Your task to perform on an android device: change the clock display to analog Image 0: 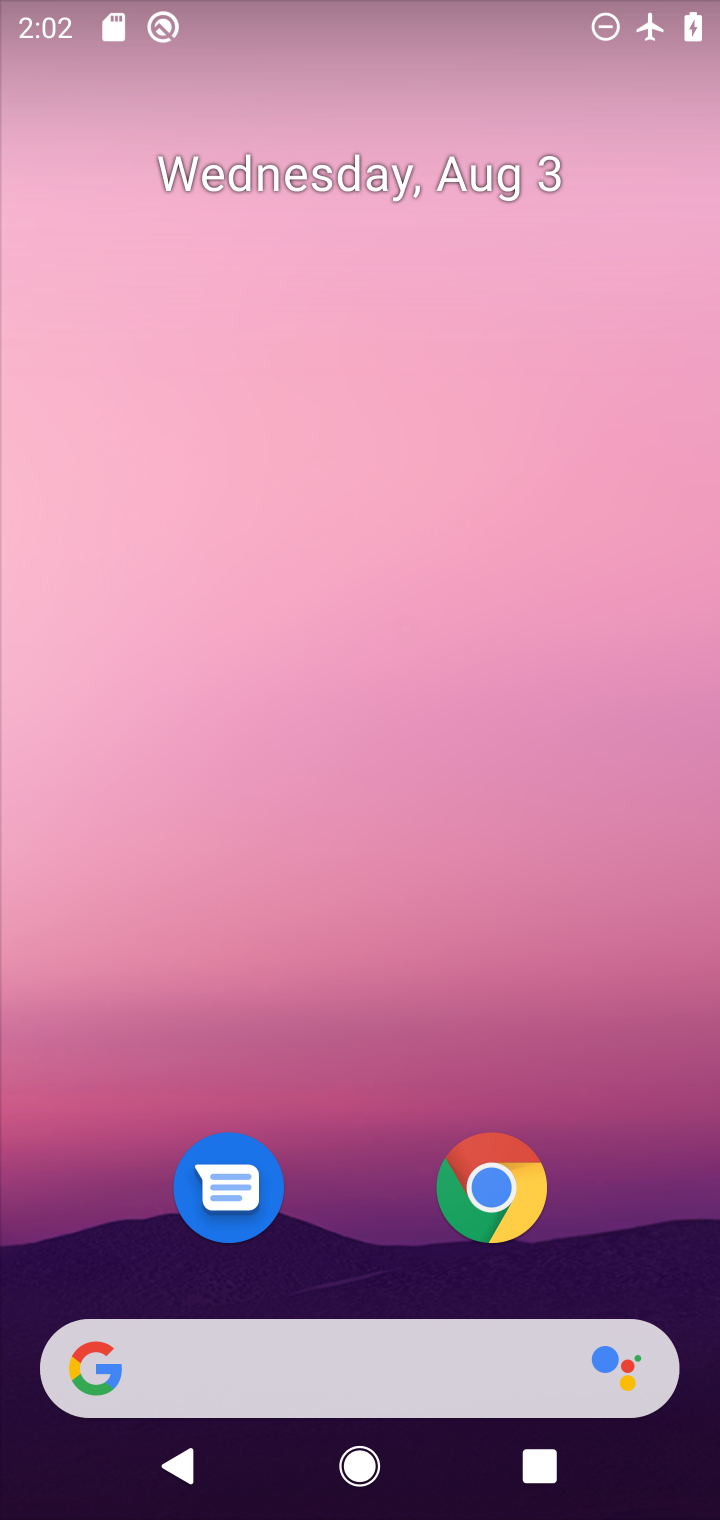
Step 0: drag from (329, 1096) to (308, 24)
Your task to perform on an android device: change the clock display to analog Image 1: 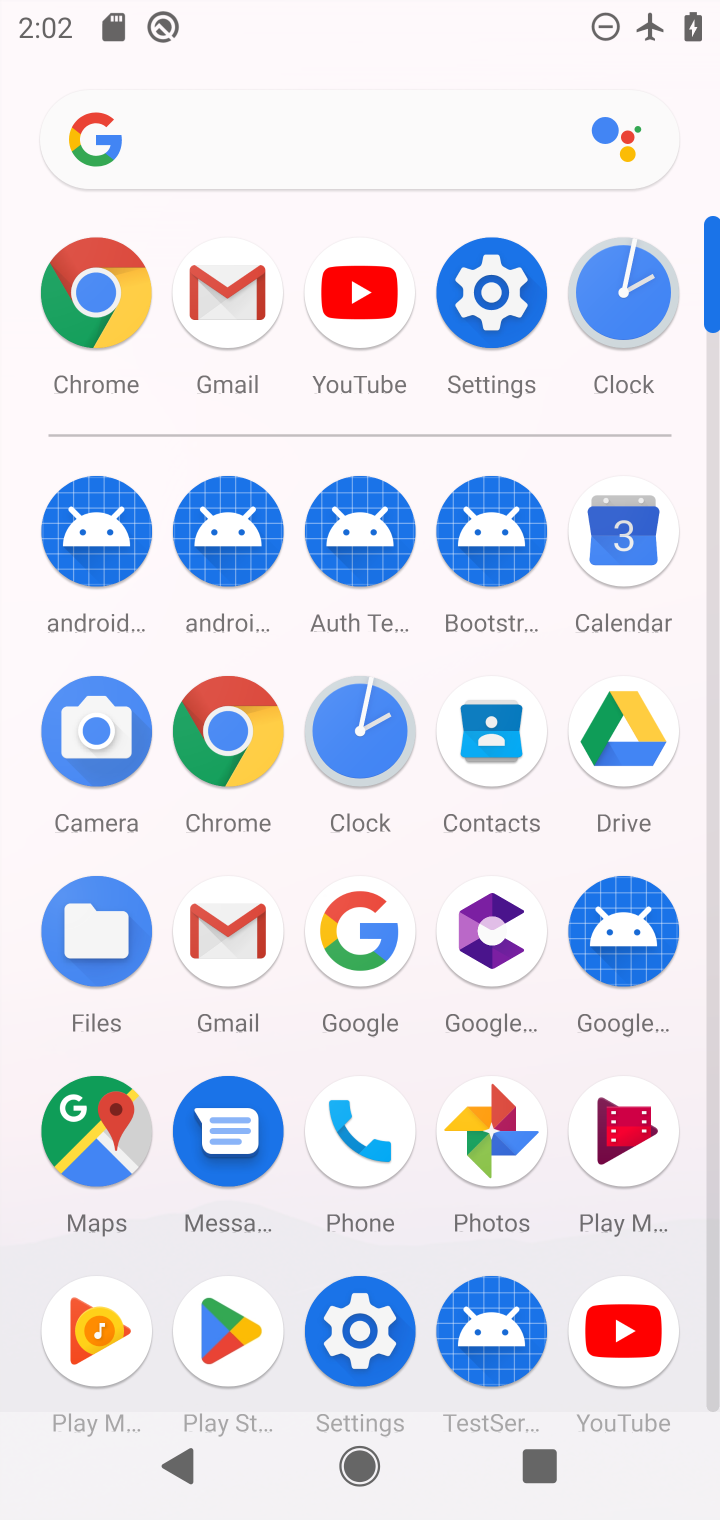
Step 1: click (616, 297)
Your task to perform on an android device: change the clock display to analog Image 2: 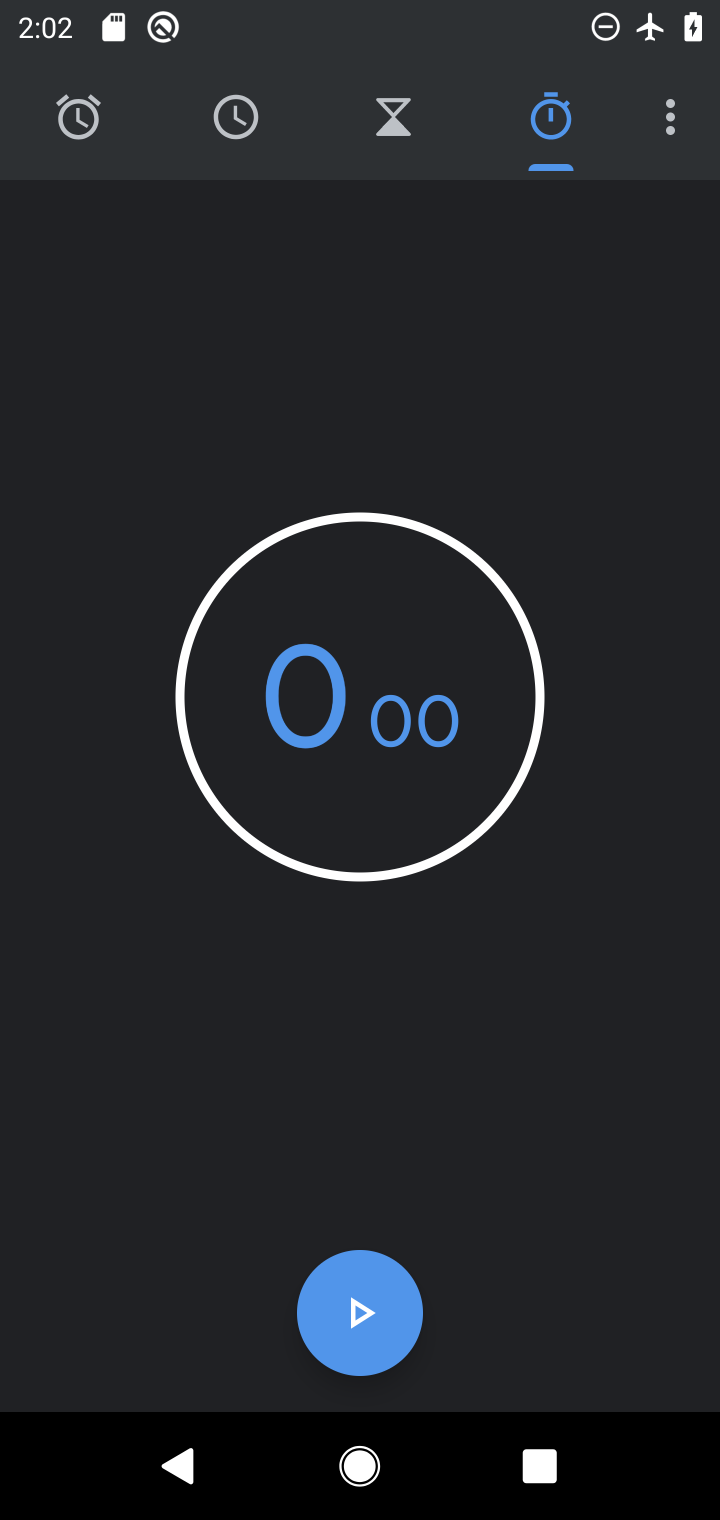
Step 2: click (254, 123)
Your task to perform on an android device: change the clock display to analog Image 3: 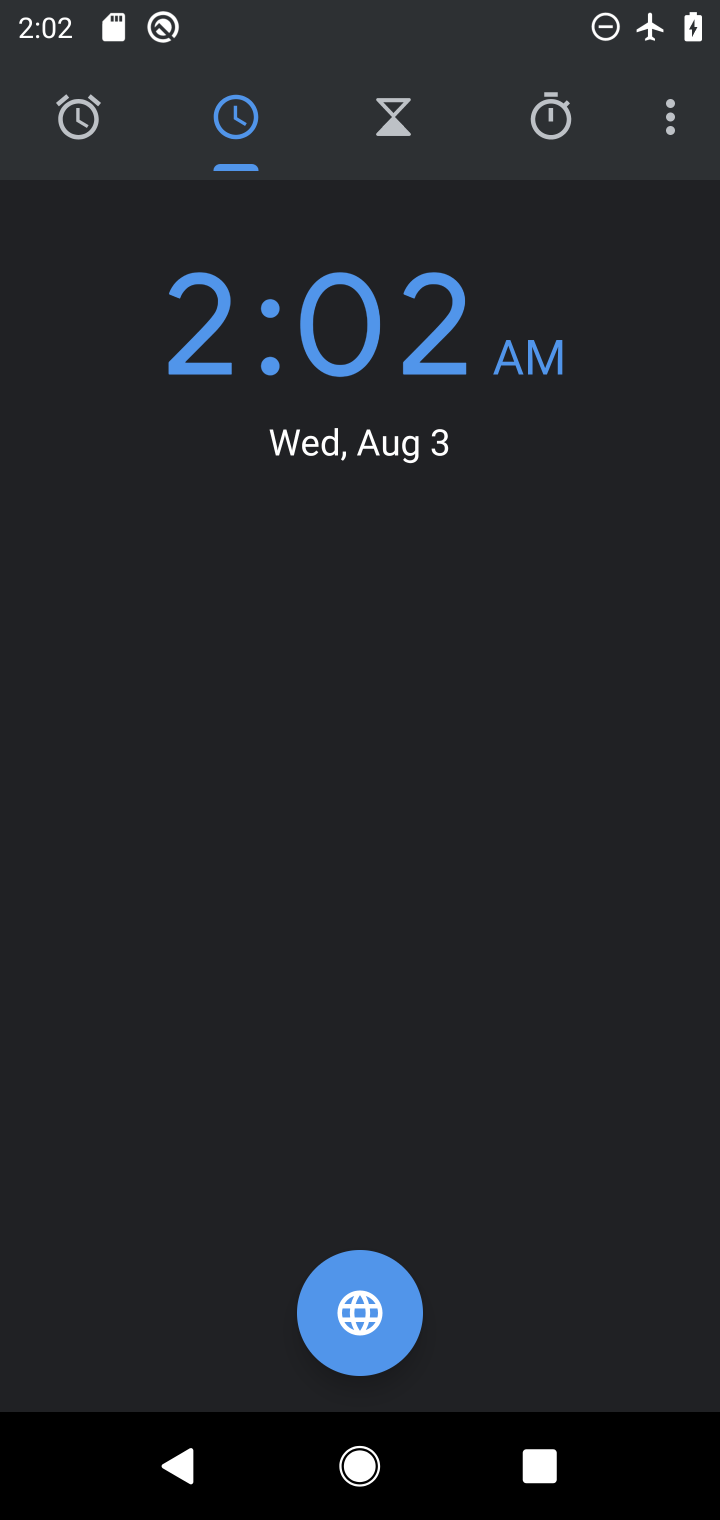
Step 3: click (675, 127)
Your task to perform on an android device: change the clock display to analog Image 4: 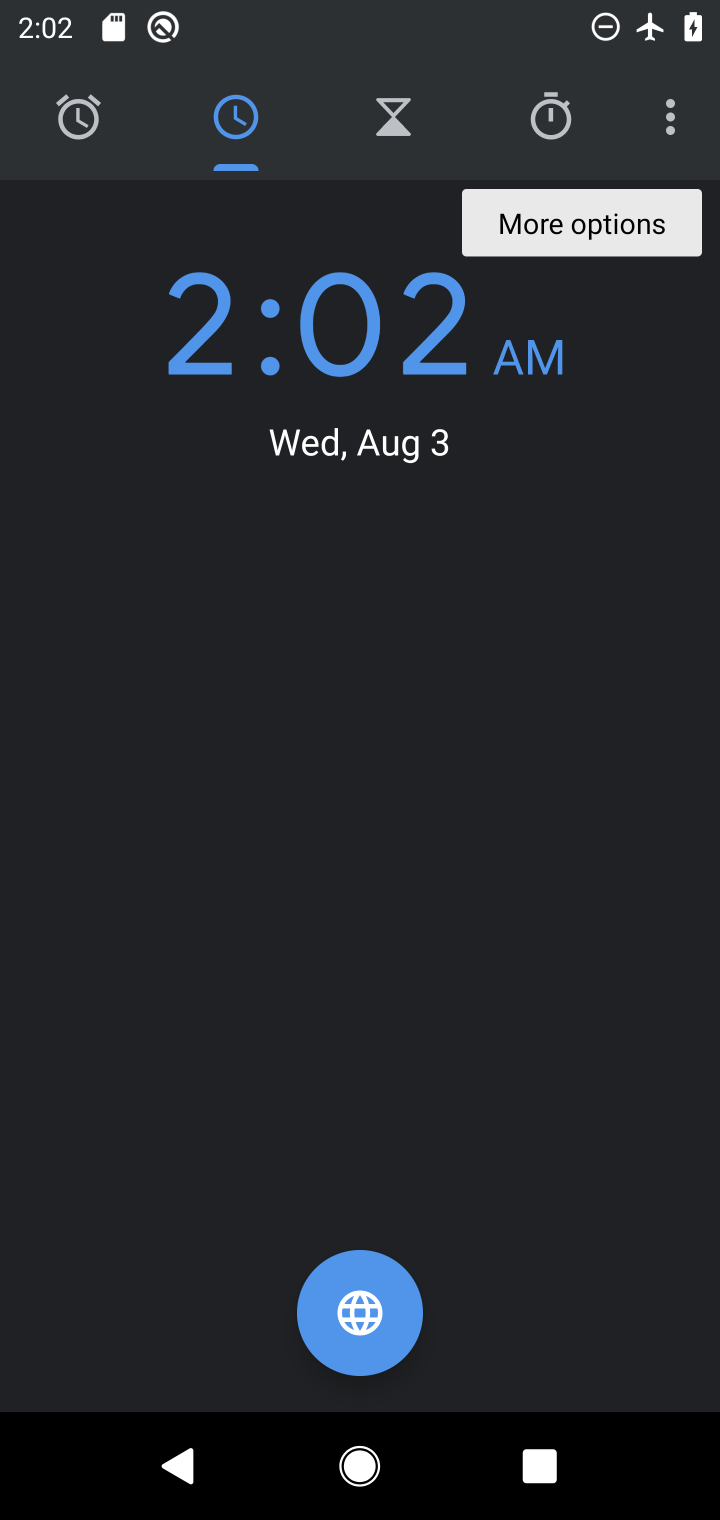
Step 4: click (675, 127)
Your task to perform on an android device: change the clock display to analog Image 5: 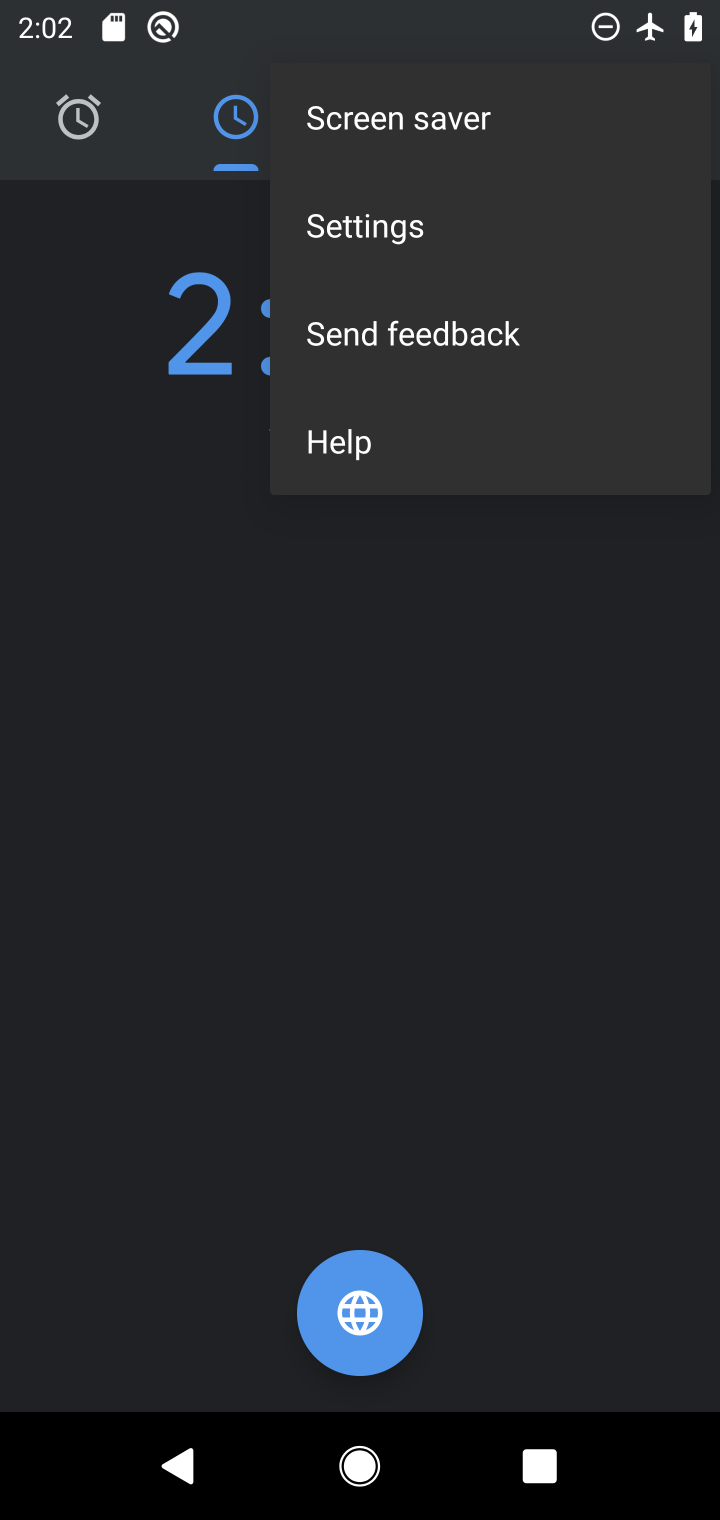
Step 5: click (472, 237)
Your task to perform on an android device: change the clock display to analog Image 6: 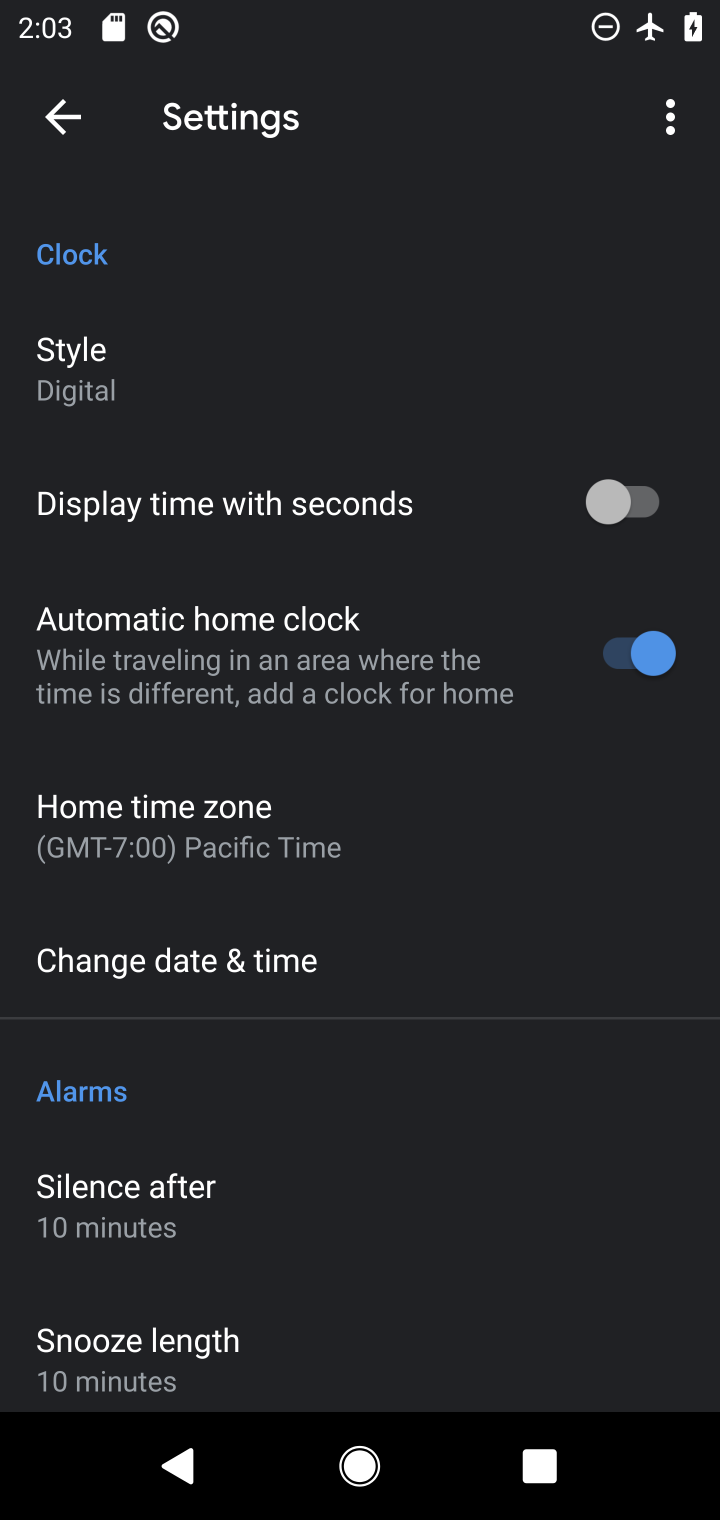
Step 6: click (99, 367)
Your task to perform on an android device: change the clock display to analog Image 7: 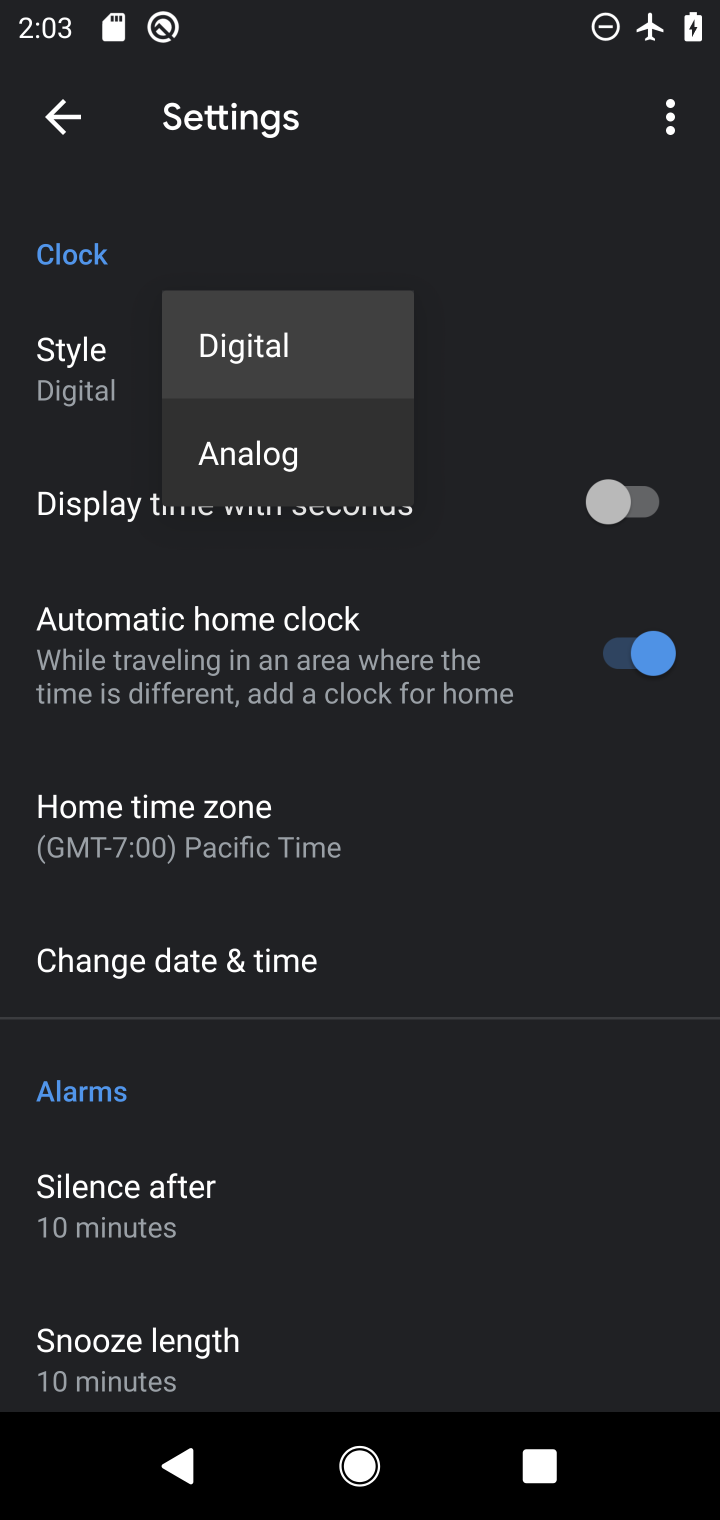
Step 7: click (234, 447)
Your task to perform on an android device: change the clock display to analog Image 8: 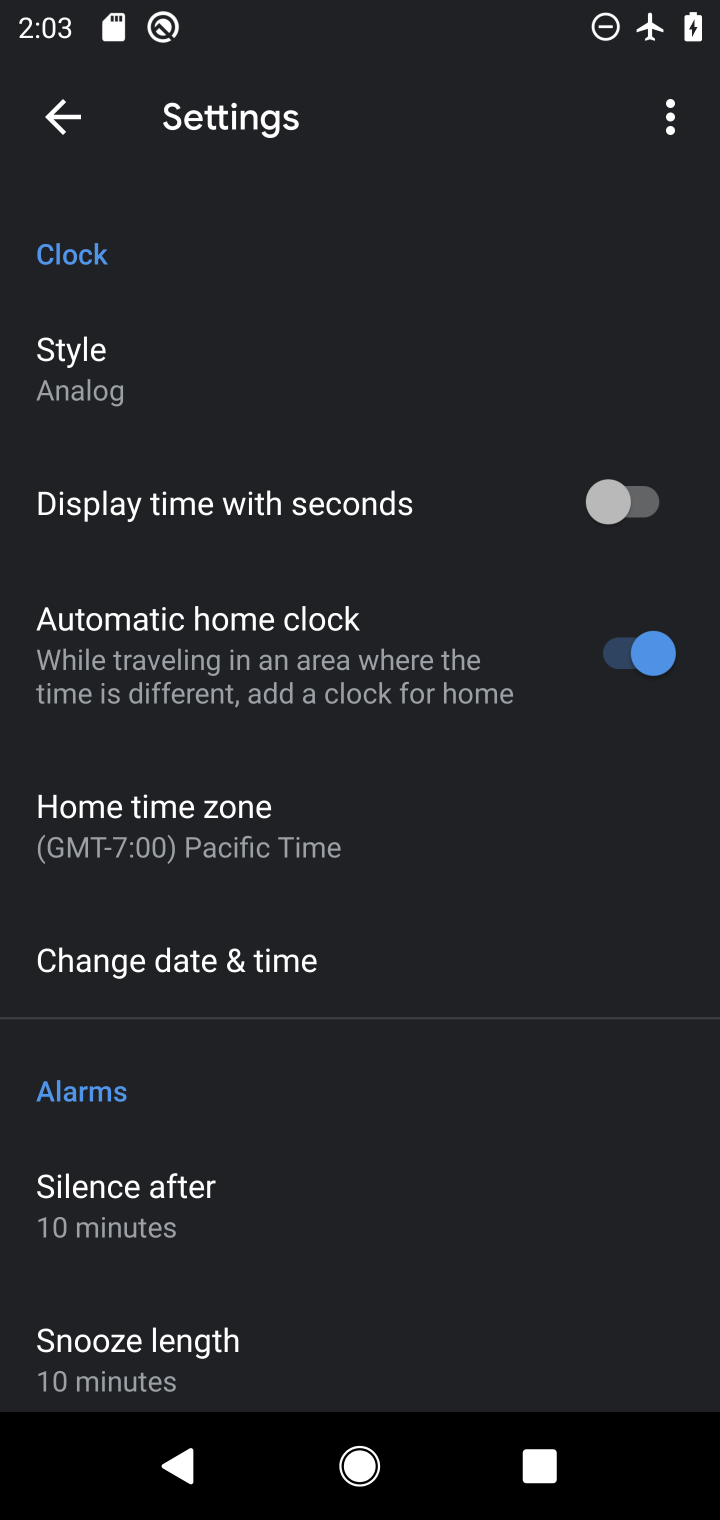
Step 8: click (61, 114)
Your task to perform on an android device: change the clock display to analog Image 9: 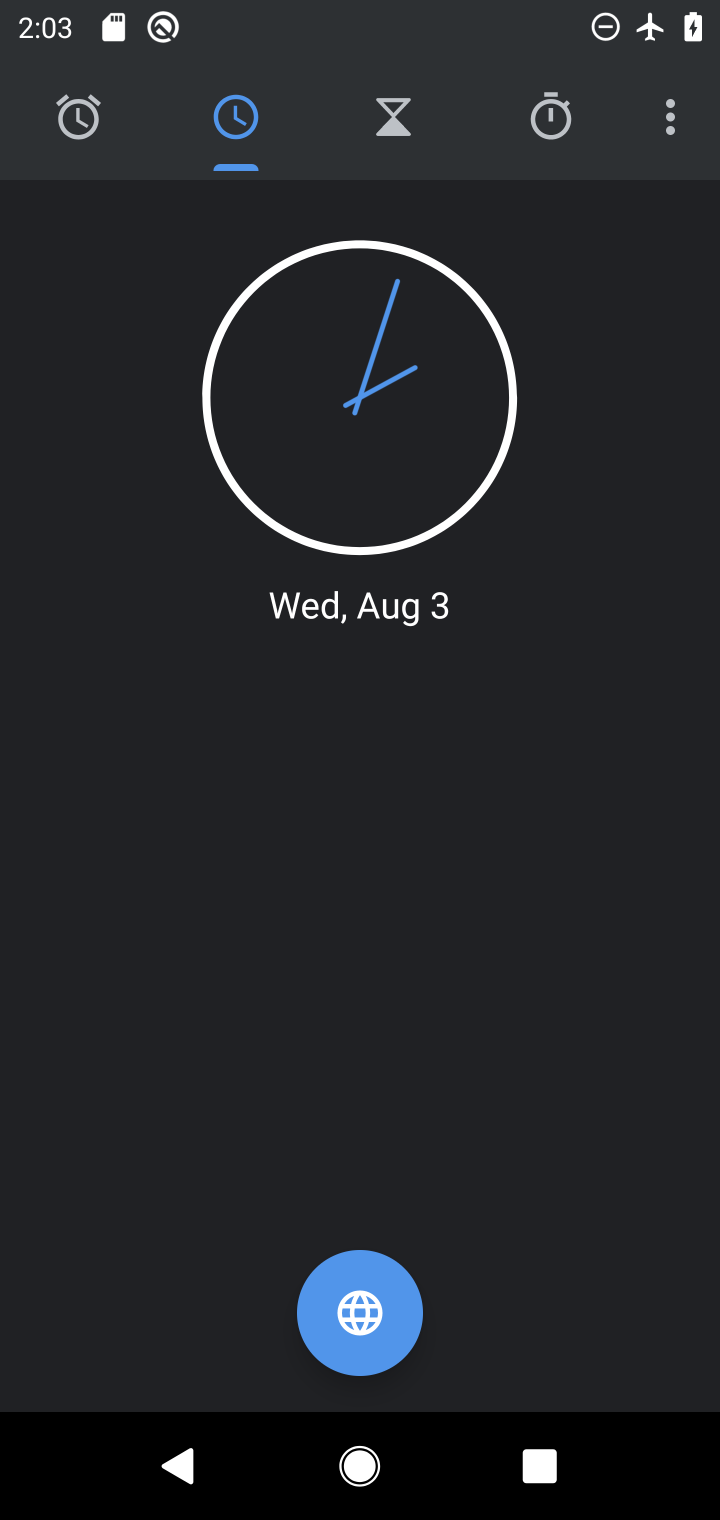
Step 9: task complete